Your task to perform on an android device: What is the recent news? Image 0: 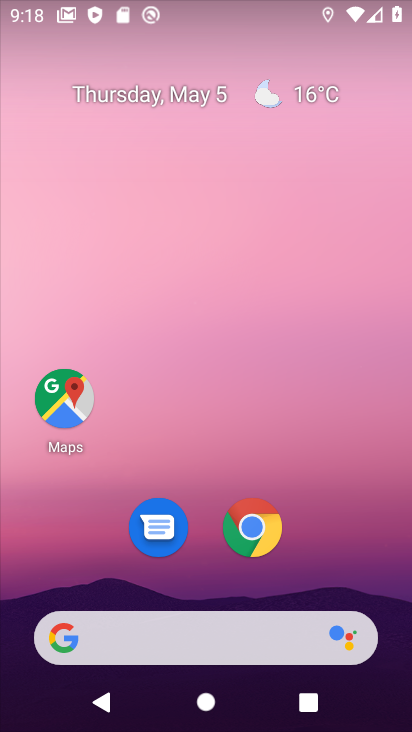
Step 0: drag from (0, 275) to (405, 238)
Your task to perform on an android device: What is the recent news? Image 1: 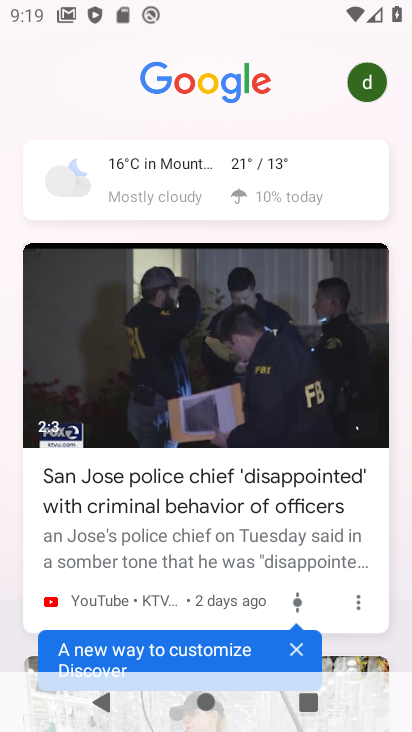
Step 1: task complete